Your task to perform on an android device: Go to battery settings Image 0: 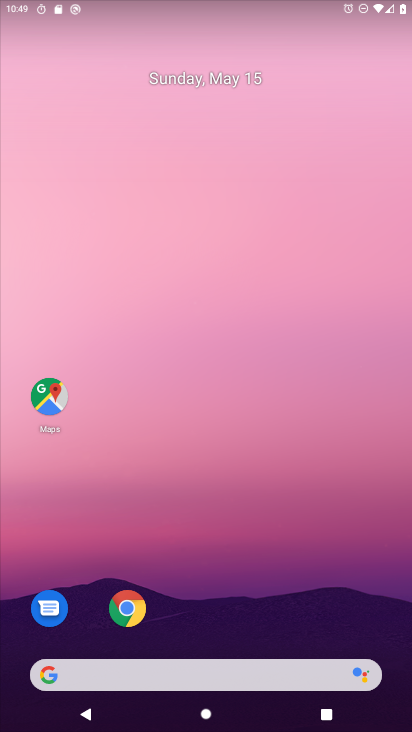
Step 0: drag from (319, 567) to (343, 147)
Your task to perform on an android device: Go to battery settings Image 1: 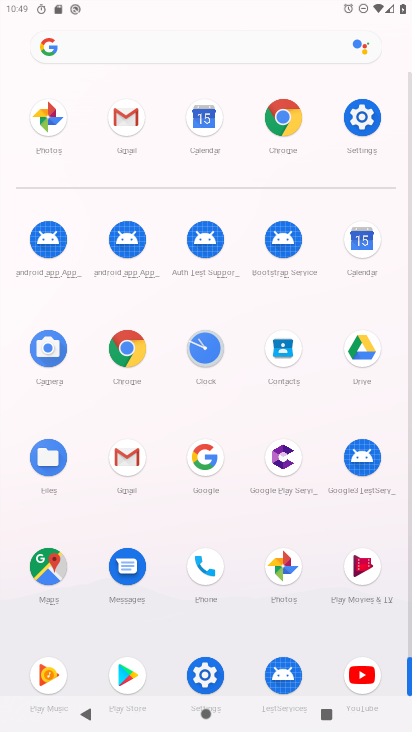
Step 1: click (361, 130)
Your task to perform on an android device: Go to battery settings Image 2: 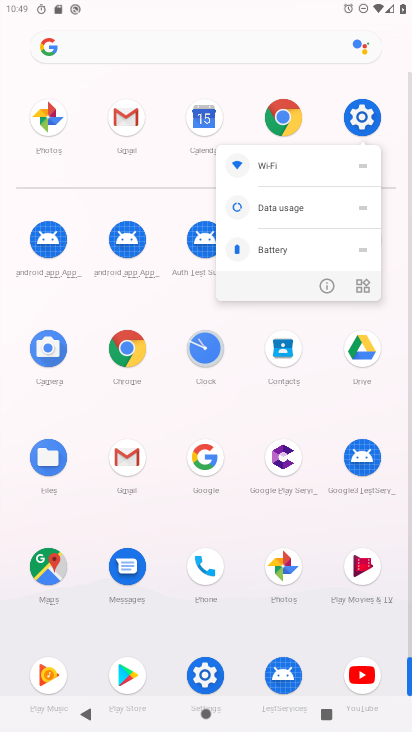
Step 2: click (369, 112)
Your task to perform on an android device: Go to battery settings Image 3: 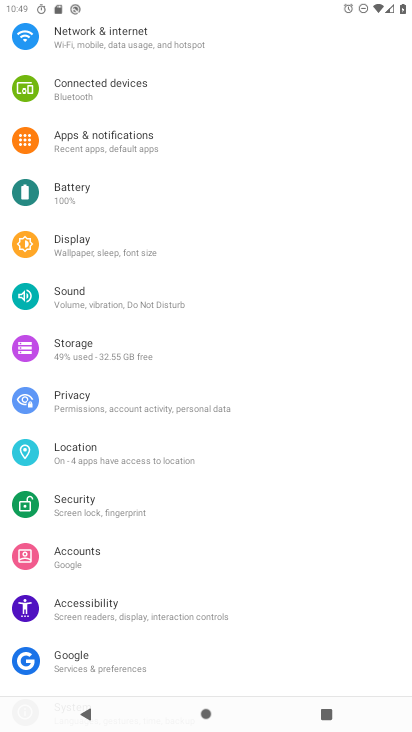
Step 3: click (118, 191)
Your task to perform on an android device: Go to battery settings Image 4: 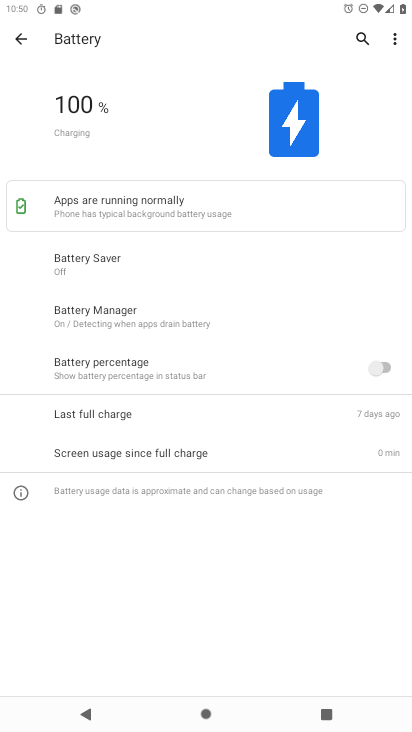
Step 4: task complete